Your task to perform on an android device: Open Google Chrome and open the bookmarks view Image 0: 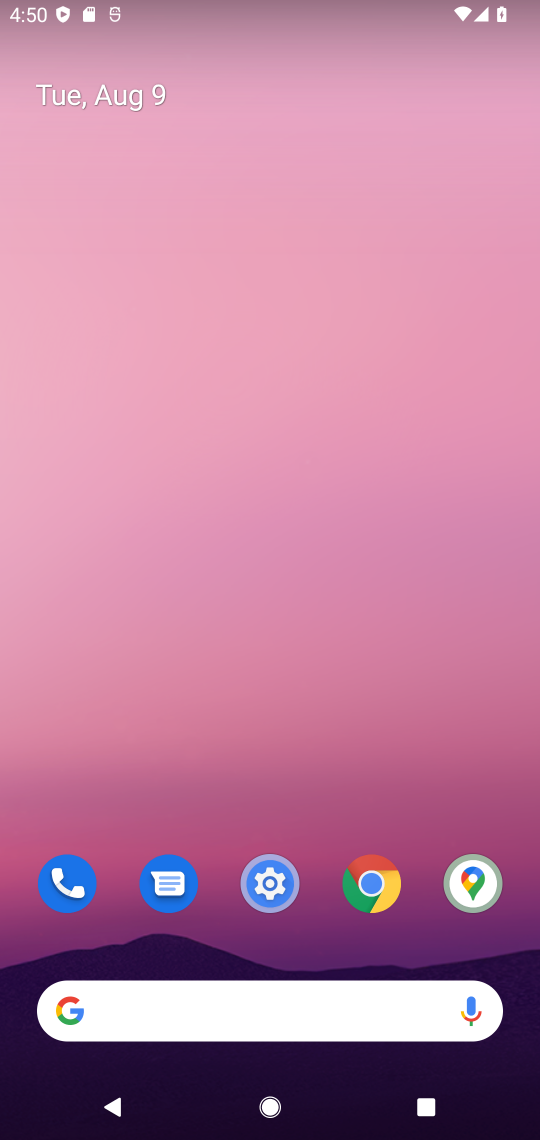
Step 0: click (385, 875)
Your task to perform on an android device: Open Google Chrome and open the bookmarks view Image 1: 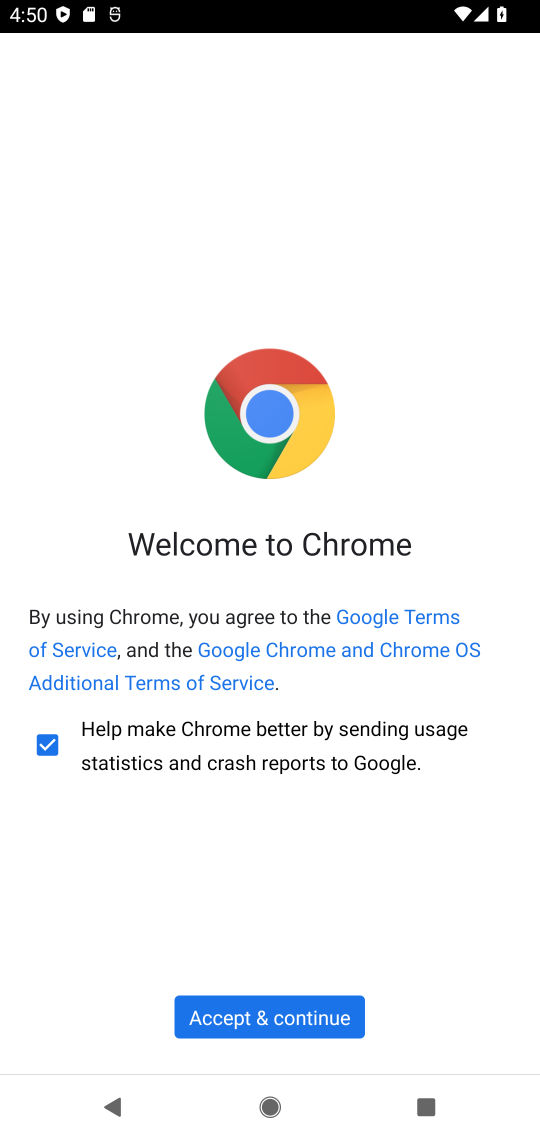
Step 1: click (341, 1000)
Your task to perform on an android device: Open Google Chrome and open the bookmarks view Image 2: 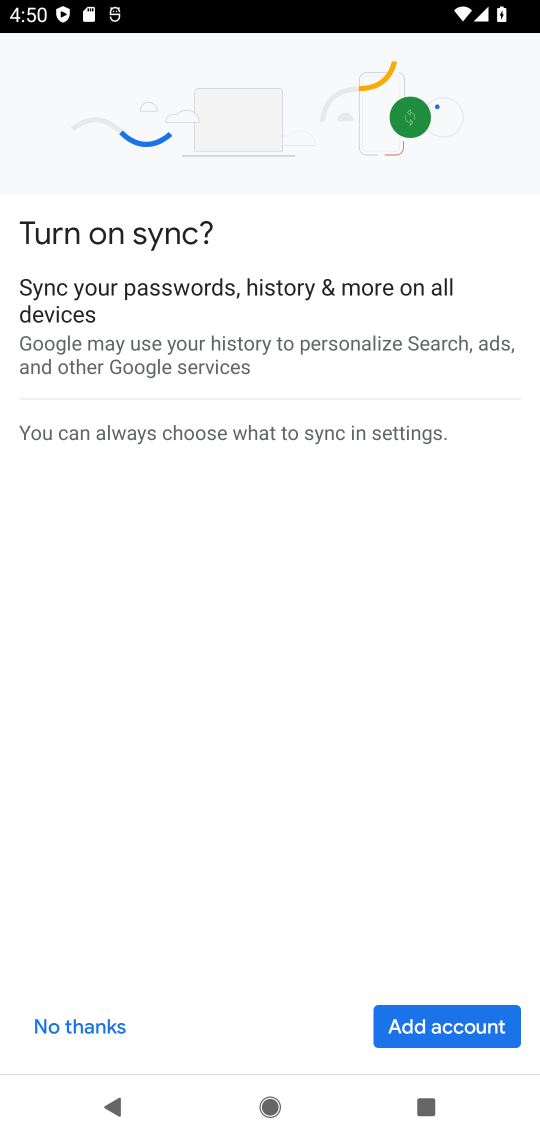
Step 2: click (89, 1027)
Your task to perform on an android device: Open Google Chrome and open the bookmarks view Image 3: 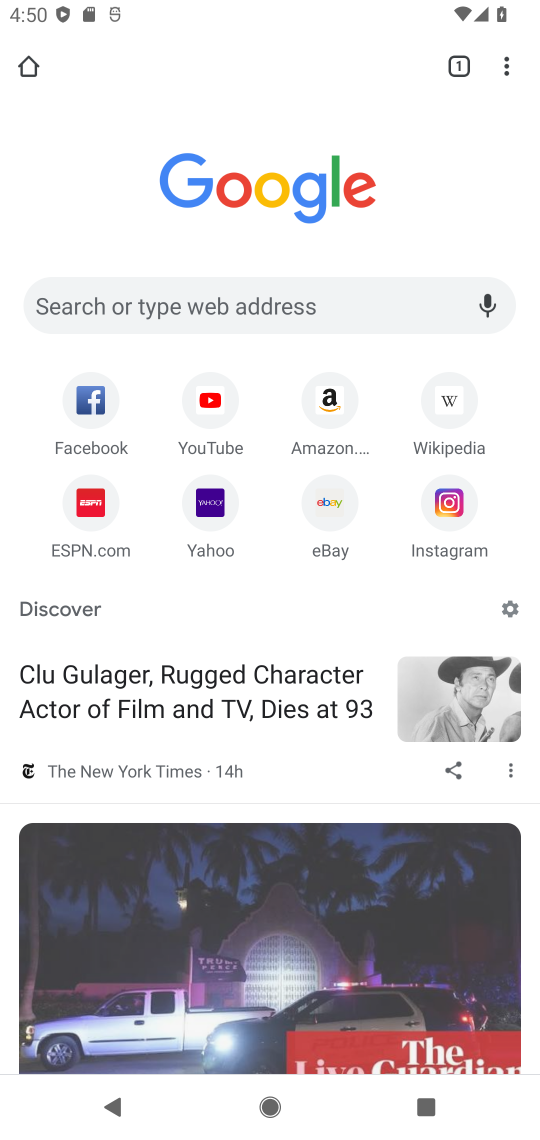
Step 3: click (81, 1019)
Your task to perform on an android device: Open Google Chrome and open the bookmarks view Image 4: 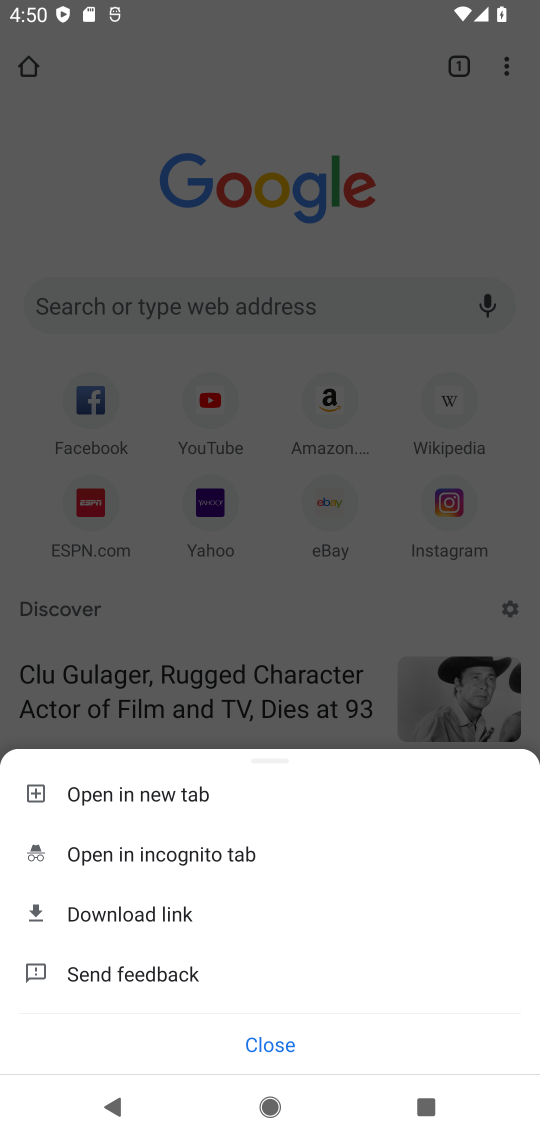
Step 4: click (266, 273)
Your task to perform on an android device: Open Google Chrome and open the bookmarks view Image 5: 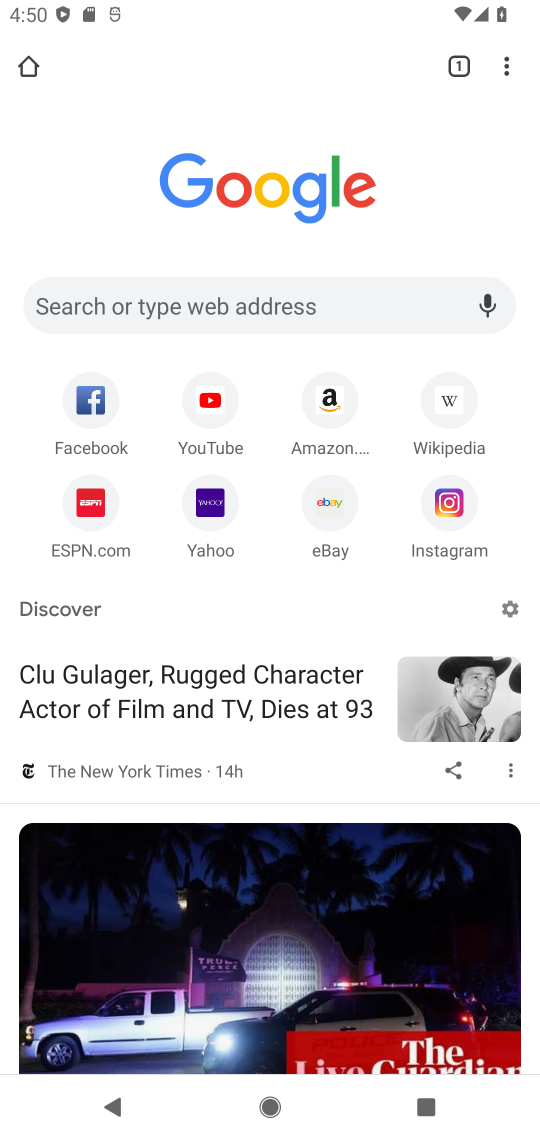
Step 5: click (511, 72)
Your task to perform on an android device: Open Google Chrome and open the bookmarks view Image 6: 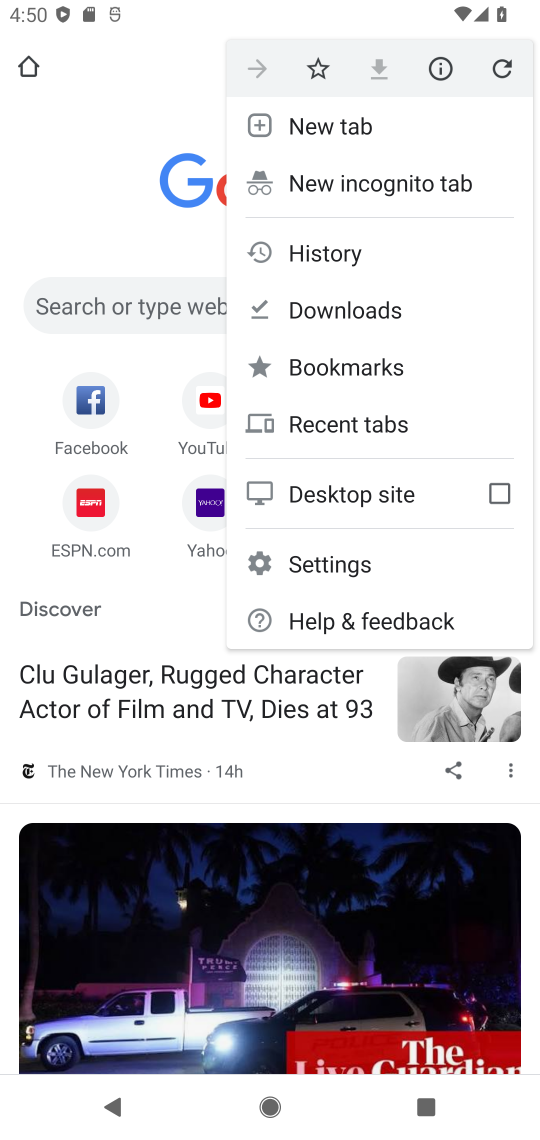
Step 6: click (380, 364)
Your task to perform on an android device: Open Google Chrome and open the bookmarks view Image 7: 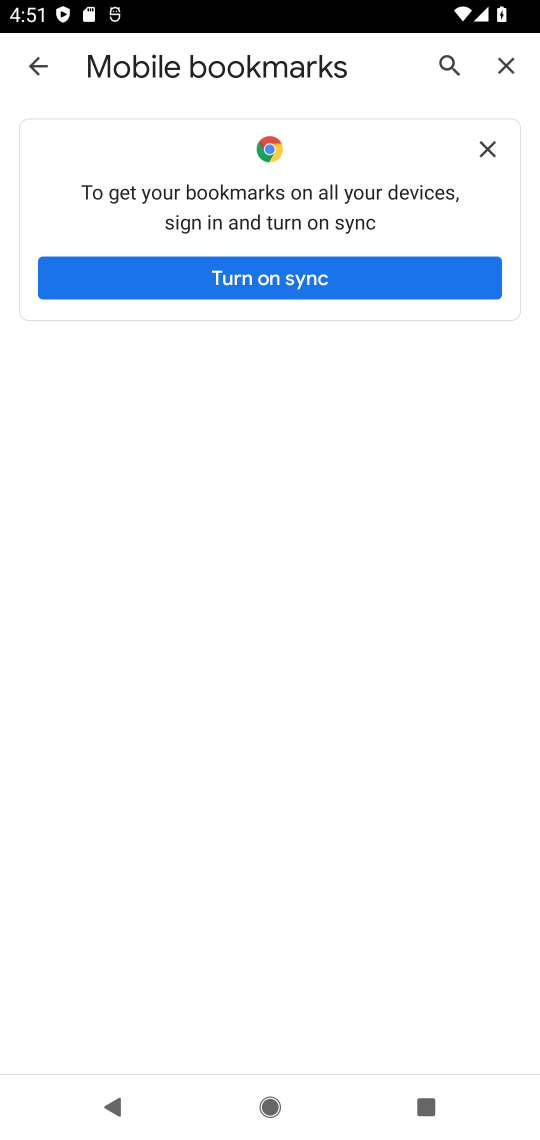
Step 7: click (489, 152)
Your task to perform on an android device: Open Google Chrome and open the bookmarks view Image 8: 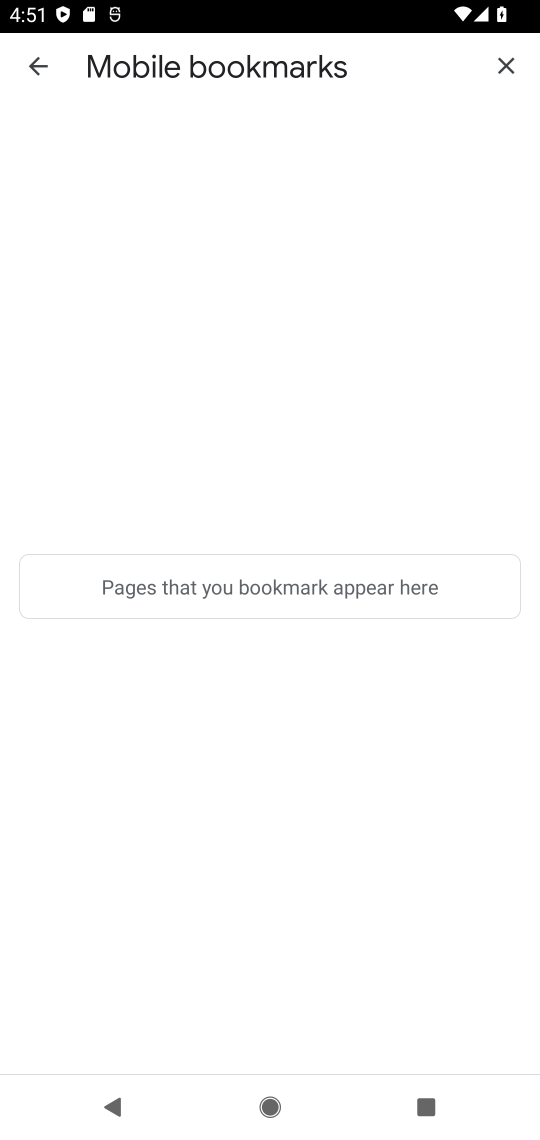
Step 8: click (32, 67)
Your task to perform on an android device: Open Google Chrome and open the bookmarks view Image 9: 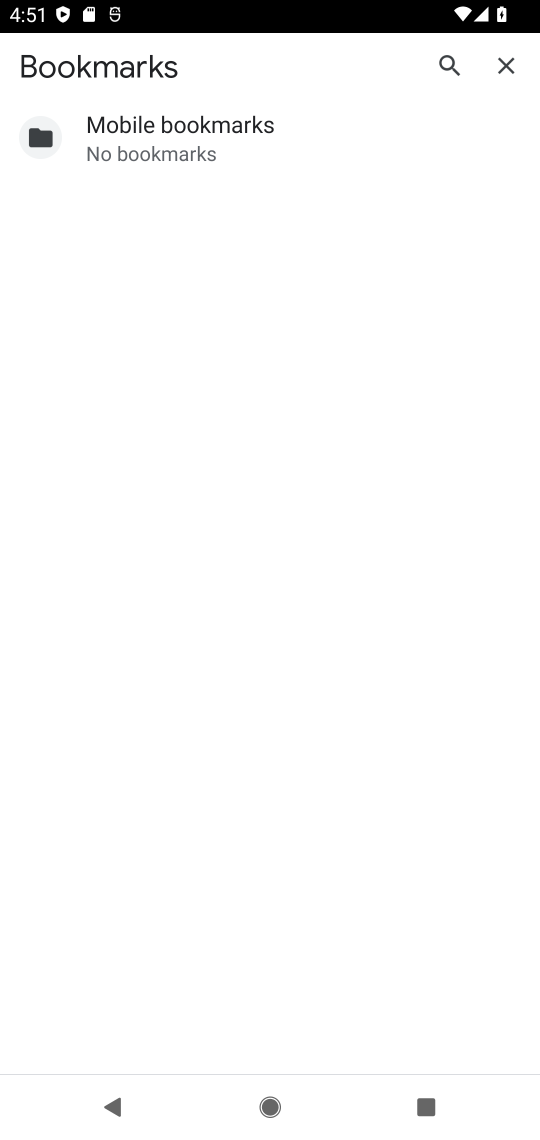
Step 9: task complete